Your task to perform on an android device: Open Youtube and go to "Your channel" Image 0: 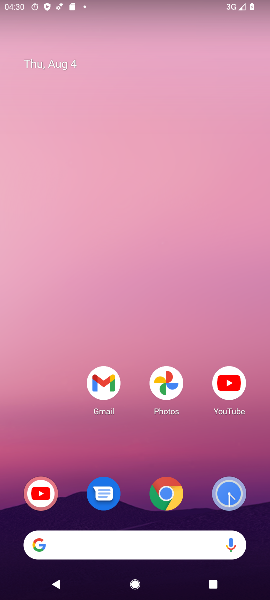
Step 0: click (224, 380)
Your task to perform on an android device: Open Youtube and go to "Your channel" Image 1: 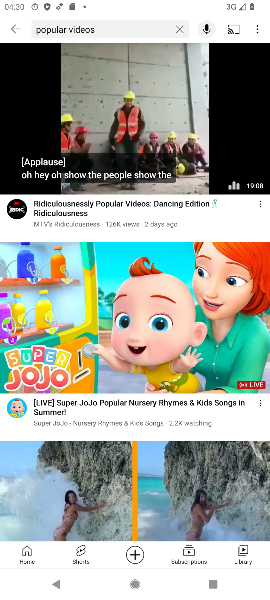
Step 1: click (12, 31)
Your task to perform on an android device: Open Youtube and go to "Your channel" Image 2: 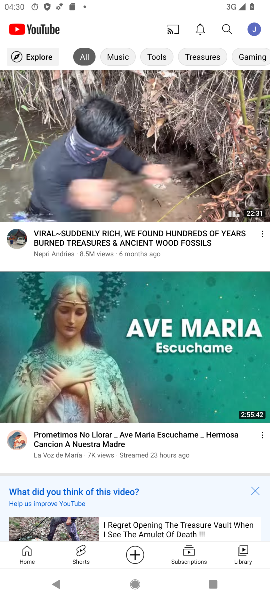
Step 2: click (240, 553)
Your task to perform on an android device: Open Youtube and go to "Your channel" Image 3: 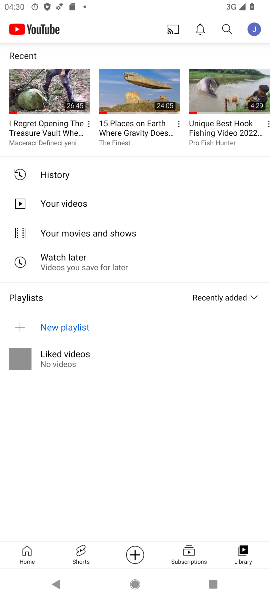
Step 3: click (85, 202)
Your task to perform on an android device: Open Youtube and go to "Your channel" Image 4: 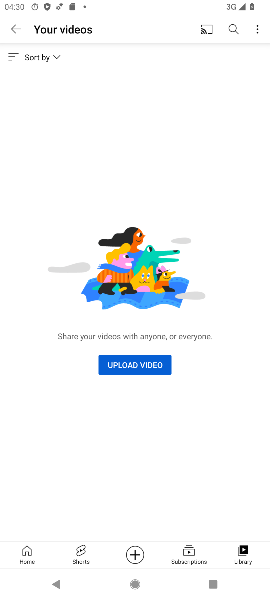
Step 4: task complete